Your task to perform on an android device: Check the weather Image 0: 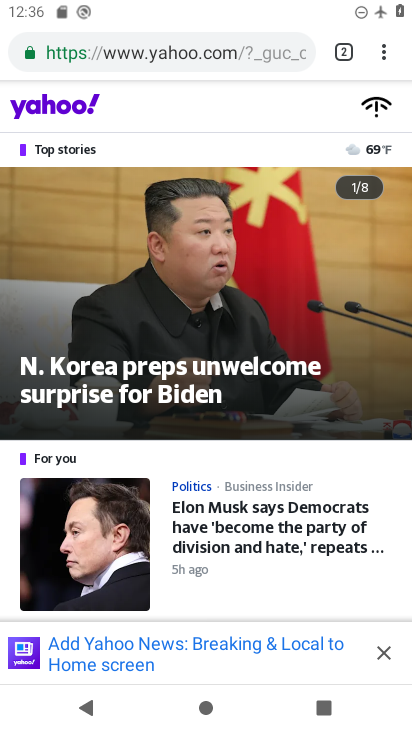
Step 0: press home button
Your task to perform on an android device: Check the weather Image 1: 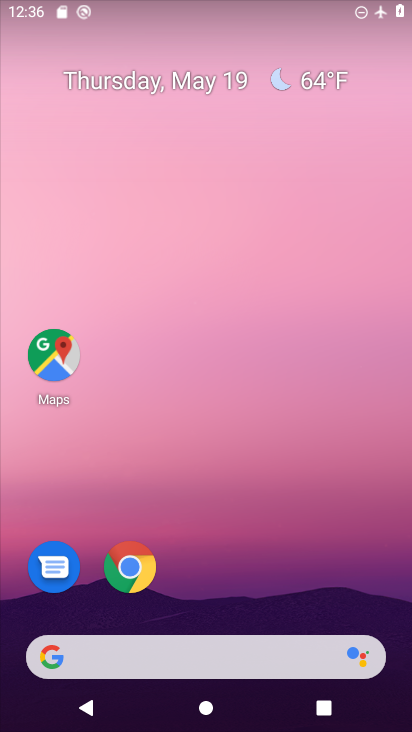
Step 1: drag from (268, 590) to (304, 106)
Your task to perform on an android device: Check the weather Image 2: 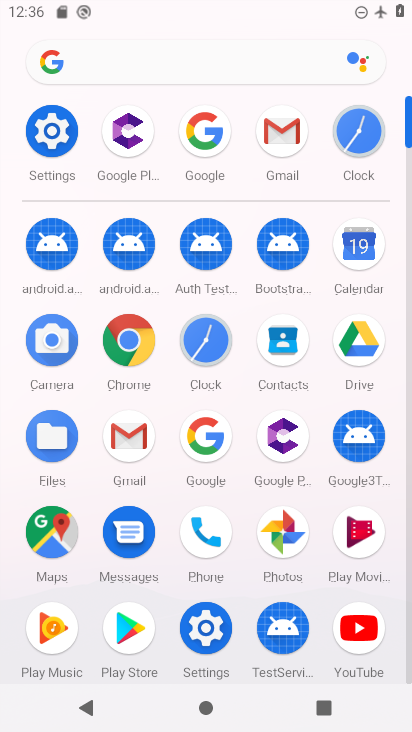
Step 2: click (187, 449)
Your task to perform on an android device: Check the weather Image 3: 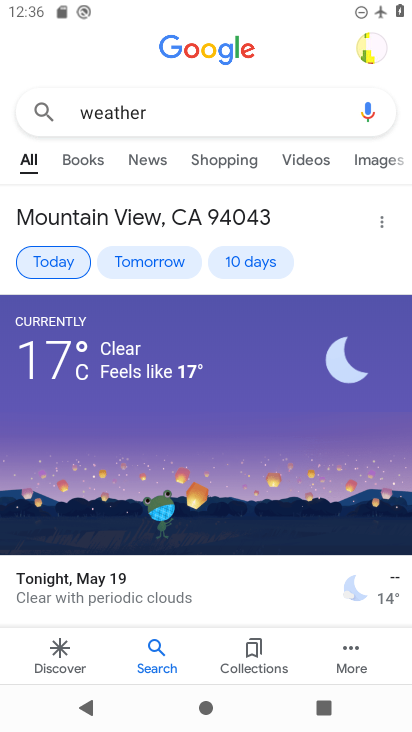
Step 3: task complete